Your task to perform on an android device: Open wifi settings Image 0: 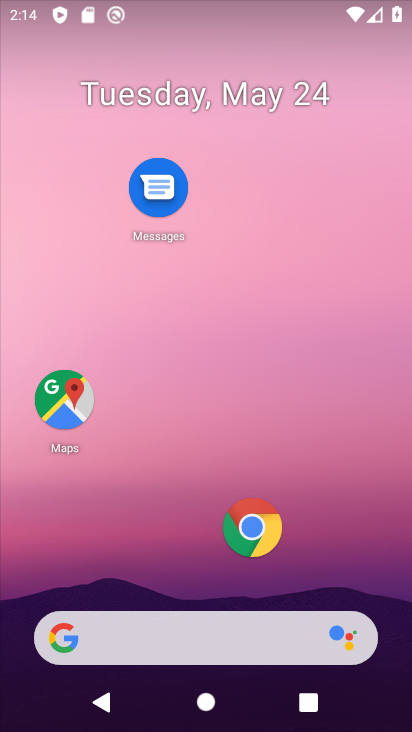
Step 0: drag from (215, 586) to (245, 224)
Your task to perform on an android device: Open wifi settings Image 1: 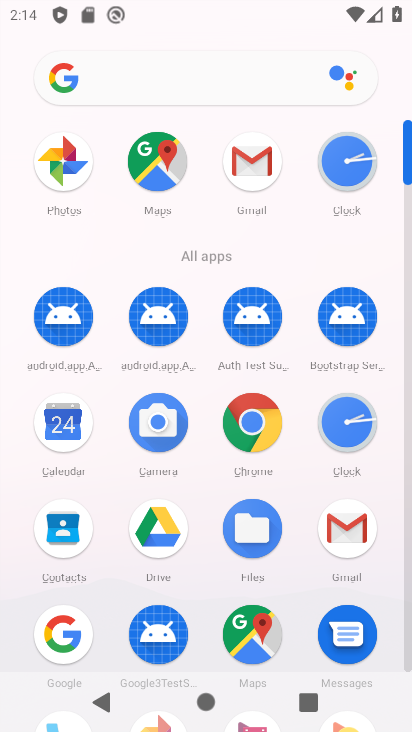
Step 1: drag from (205, 515) to (259, 141)
Your task to perform on an android device: Open wifi settings Image 2: 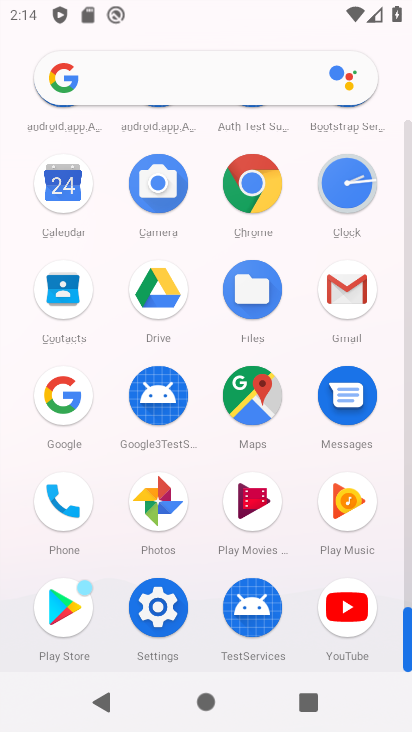
Step 2: click (157, 607)
Your task to perform on an android device: Open wifi settings Image 3: 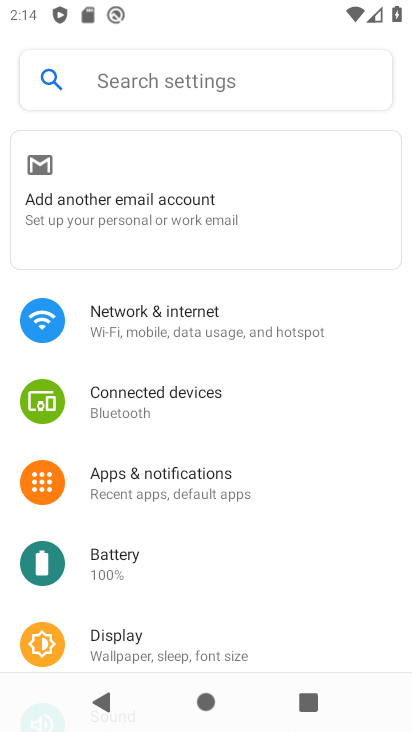
Step 3: click (156, 333)
Your task to perform on an android device: Open wifi settings Image 4: 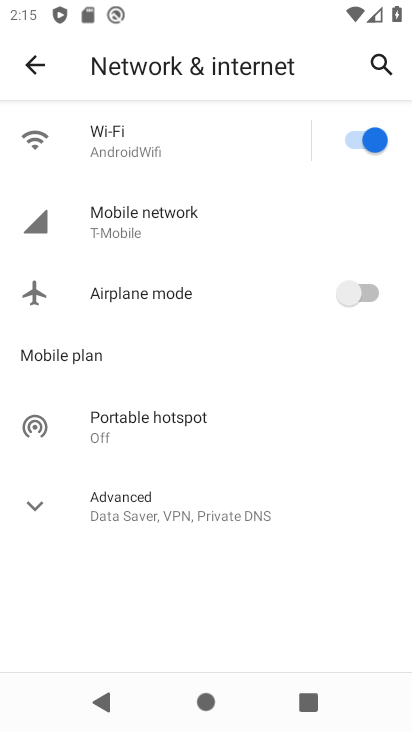
Step 4: task complete